Your task to perform on an android device: Open Google Maps Image 0: 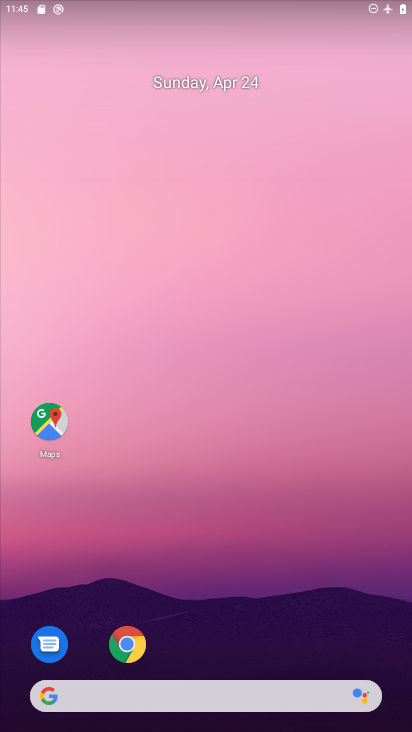
Step 0: drag from (201, 649) to (216, 16)
Your task to perform on an android device: Open Google Maps Image 1: 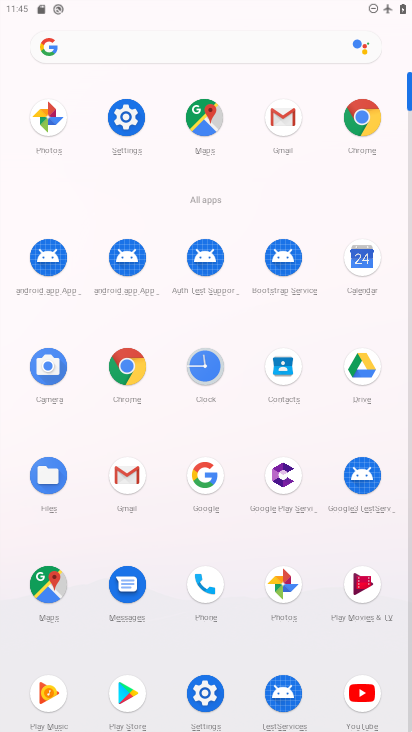
Step 1: click (58, 590)
Your task to perform on an android device: Open Google Maps Image 2: 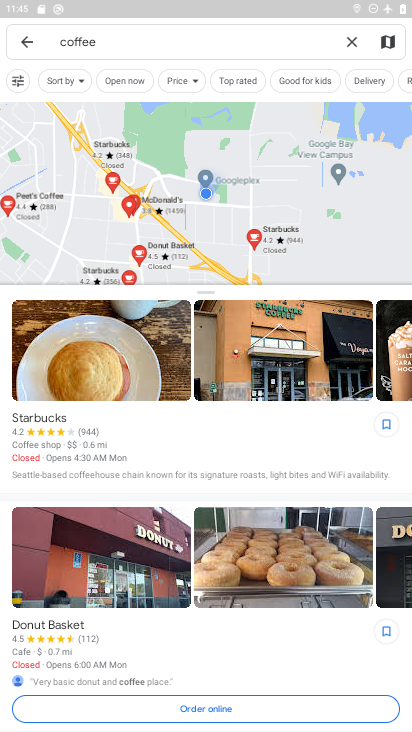
Step 2: task complete